Your task to perform on an android device: open a new tab in the chrome app Image 0: 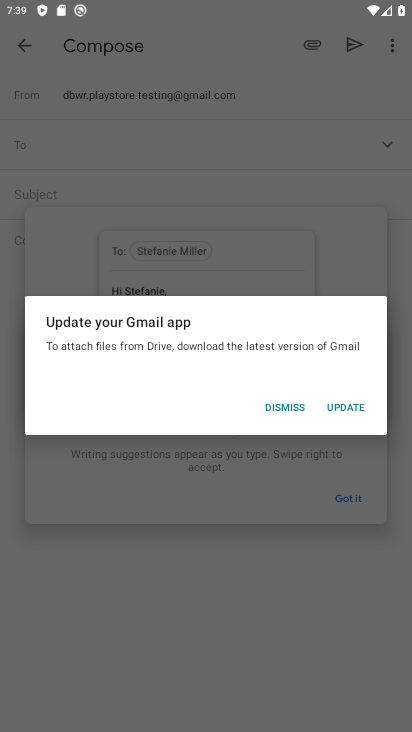
Step 0: press home button
Your task to perform on an android device: open a new tab in the chrome app Image 1: 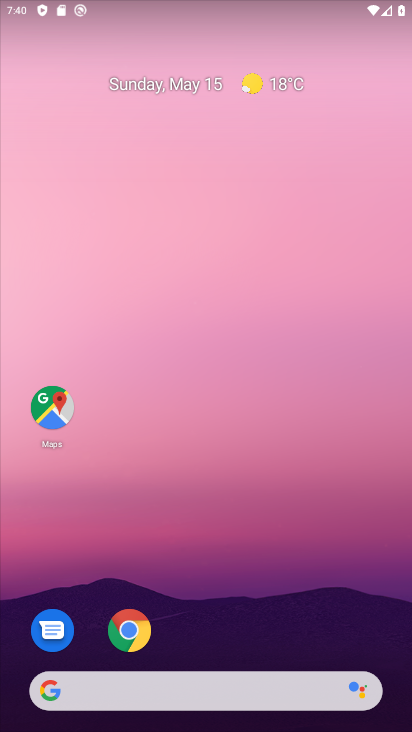
Step 1: drag from (195, 609) to (253, 58)
Your task to perform on an android device: open a new tab in the chrome app Image 2: 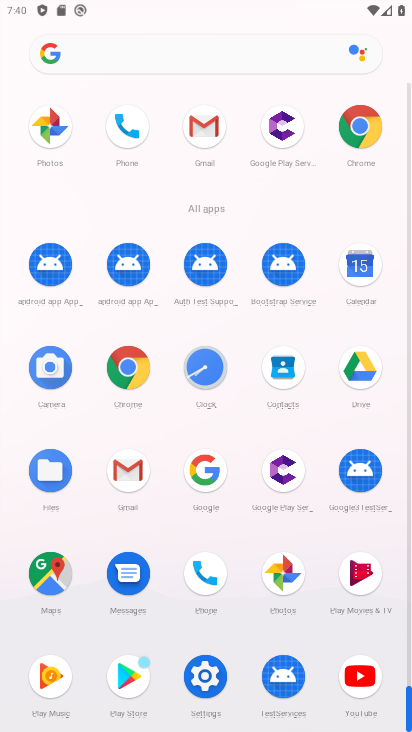
Step 2: click (362, 120)
Your task to perform on an android device: open a new tab in the chrome app Image 3: 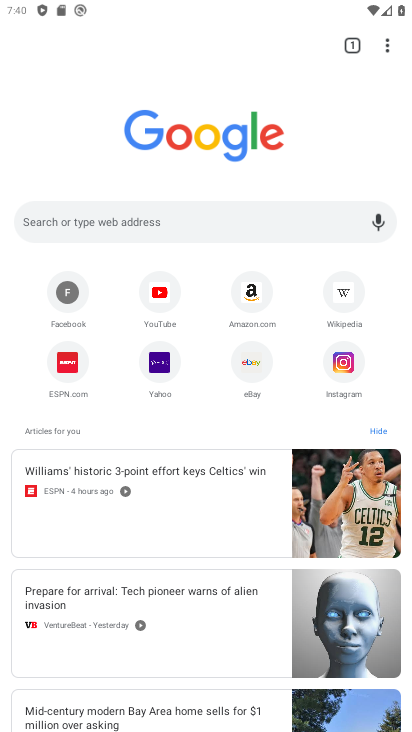
Step 3: click (359, 41)
Your task to perform on an android device: open a new tab in the chrome app Image 4: 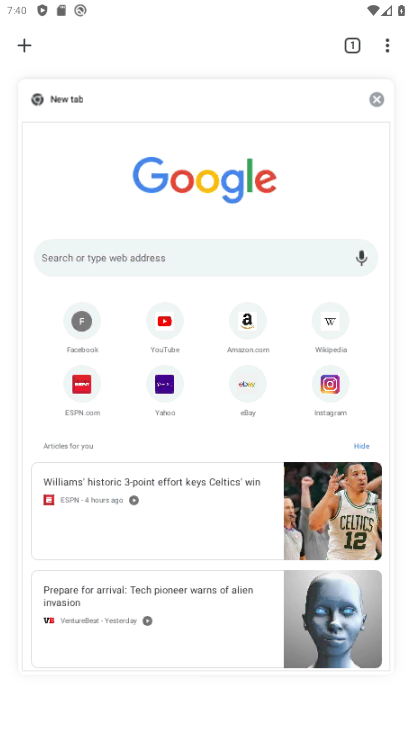
Step 4: click (22, 41)
Your task to perform on an android device: open a new tab in the chrome app Image 5: 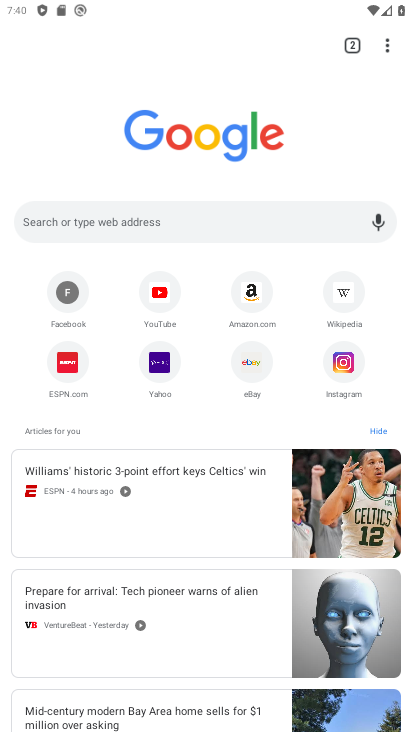
Step 5: task complete